Your task to perform on an android device: Open the map Image 0: 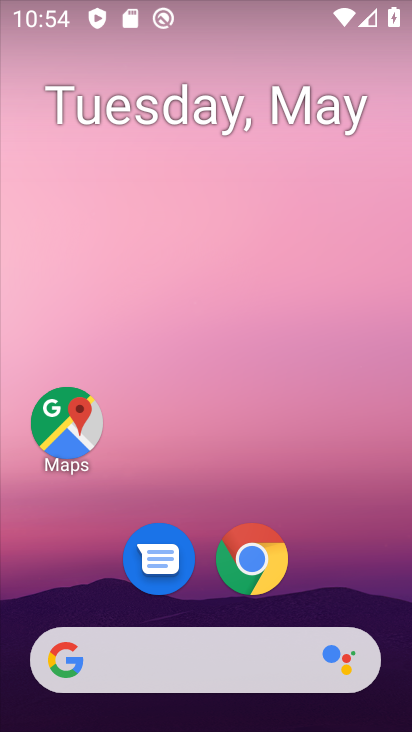
Step 0: drag from (232, 440) to (213, 43)
Your task to perform on an android device: Open the map Image 1: 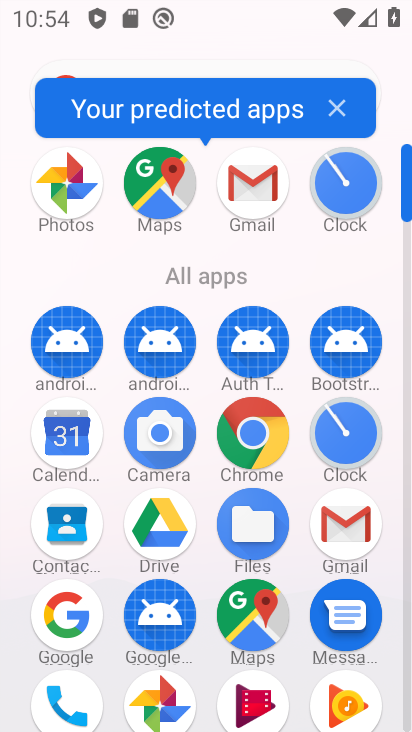
Step 1: click (258, 618)
Your task to perform on an android device: Open the map Image 2: 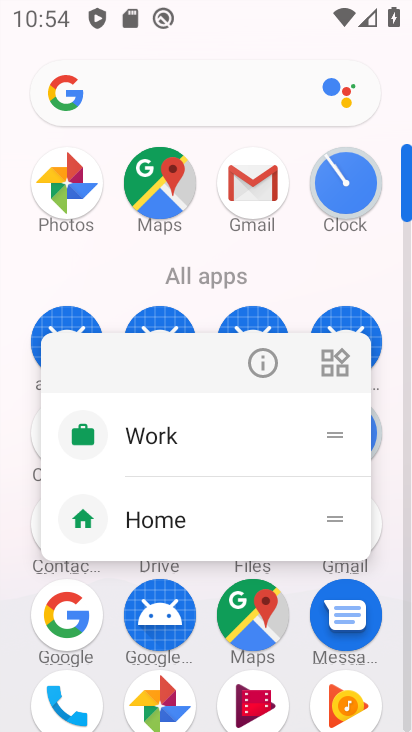
Step 2: click (263, 635)
Your task to perform on an android device: Open the map Image 3: 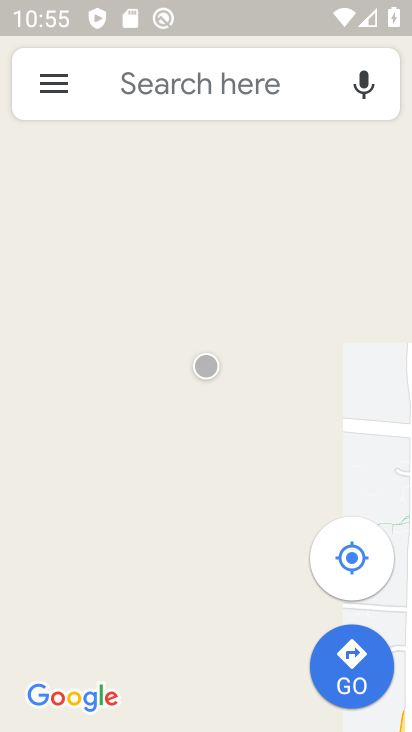
Step 3: task complete